Your task to perform on an android device: check android version Image 0: 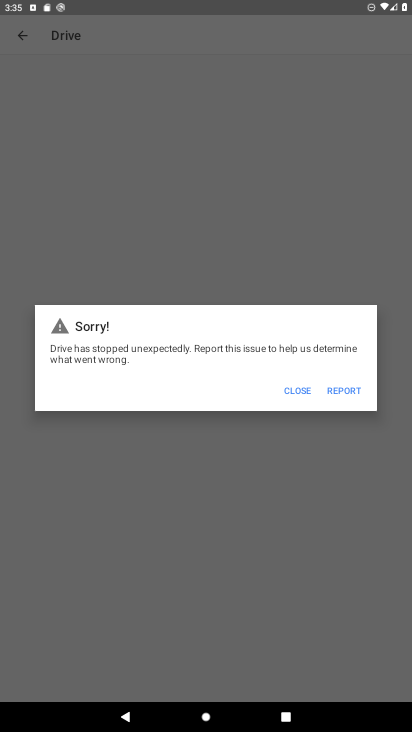
Step 0: press home button
Your task to perform on an android device: check android version Image 1: 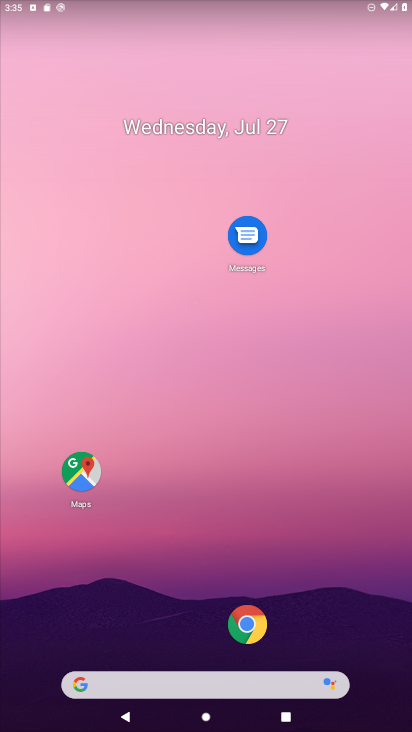
Step 1: drag from (171, 441) to (147, 24)
Your task to perform on an android device: check android version Image 2: 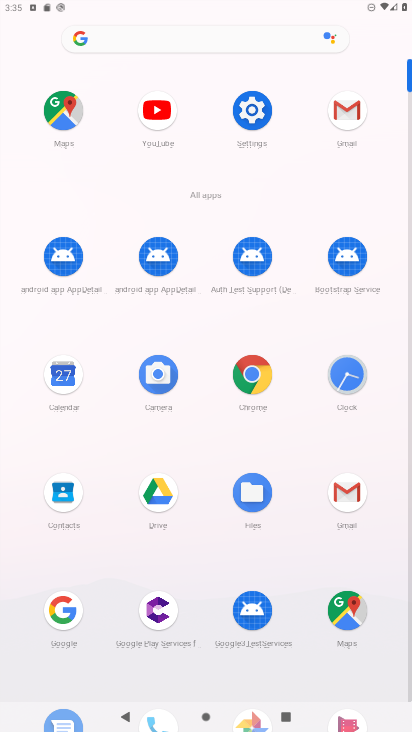
Step 2: click (253, 126)
Your task to perform on an android device: check android version Image 3: 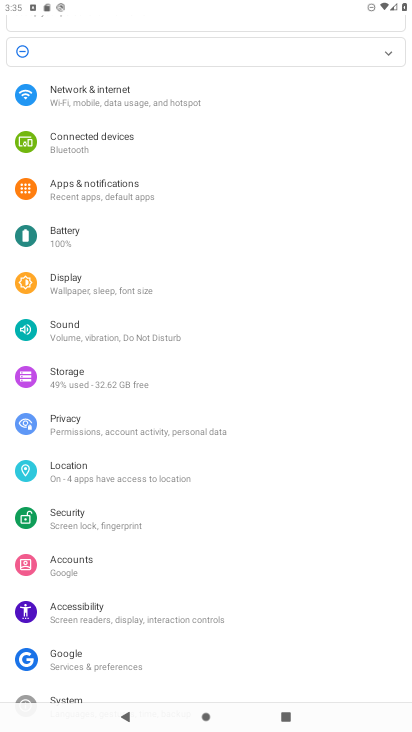
Step 3: drag from (166, 668) to (95, 106)
Your task to perform on an android device: check android version Image 4: 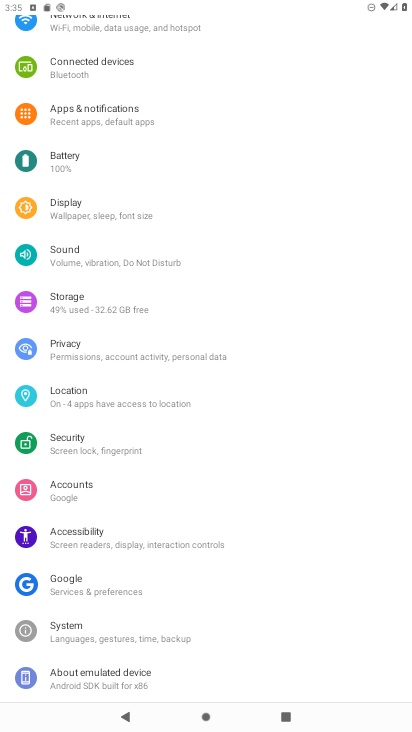
Step 4: click (96, 667)
Your task to perform on an android device: check android version Image 5: 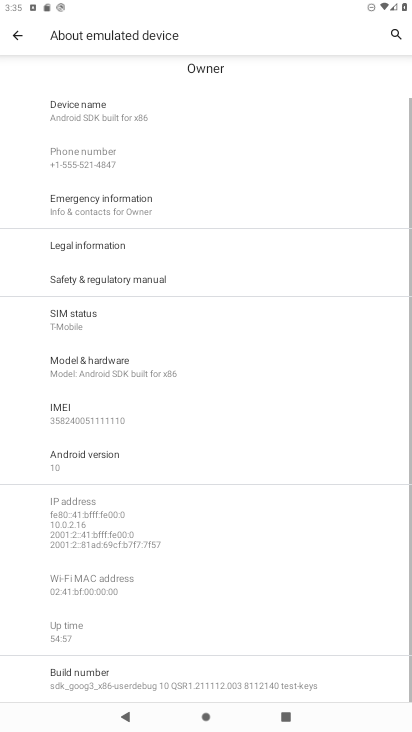
Step 5: click (70, 466)
Your task to perform on an android device: check android version Image 6: 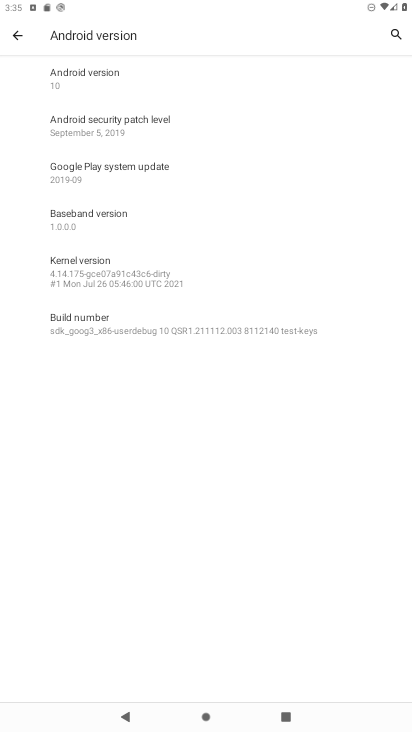
Step 6: task complete